Your task to perform on an android device: turn off sleep mode Image 0: 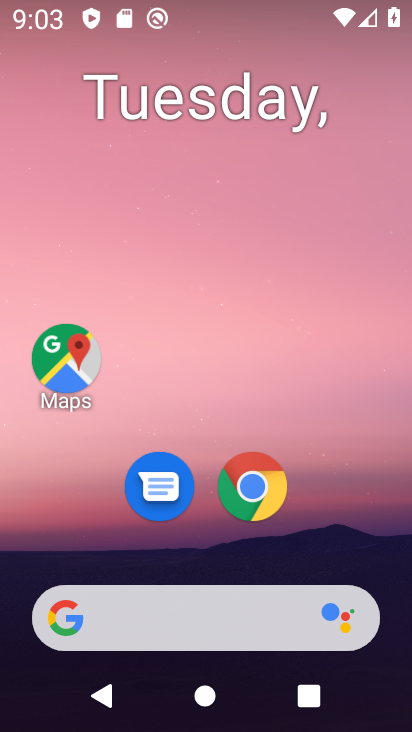
Step 0: press home button
Your task to perform on an android device: turn off sleep mode Image 1: 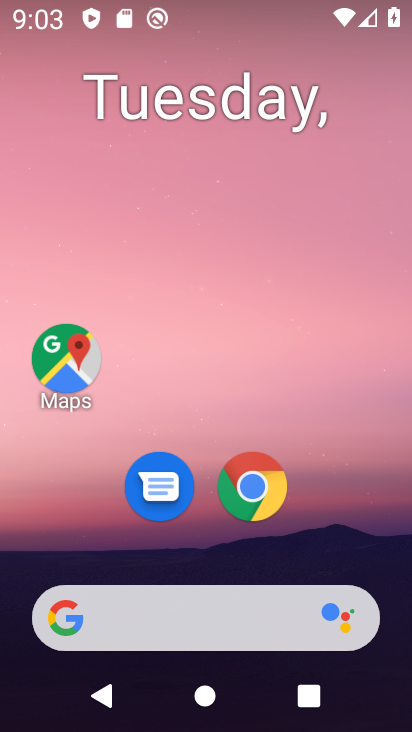
Step 1: drag from (357, 539) to (354, 158)
Your task to perform on an android device: turn off sleep mode Image 2: 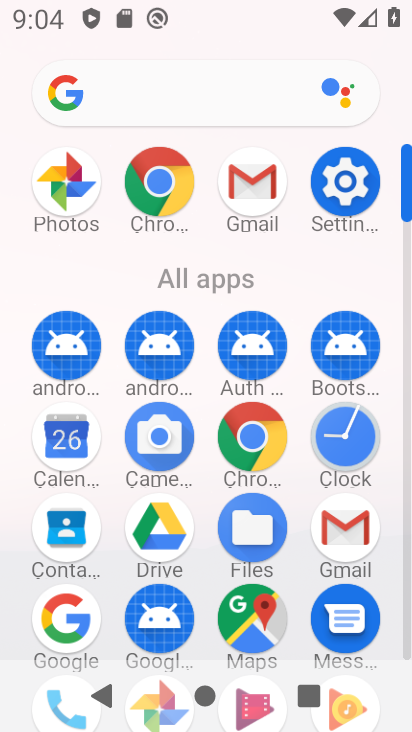
Step 2: click (348, 184)
Your task to perform on an android device: turn off sleep mode Image 3: 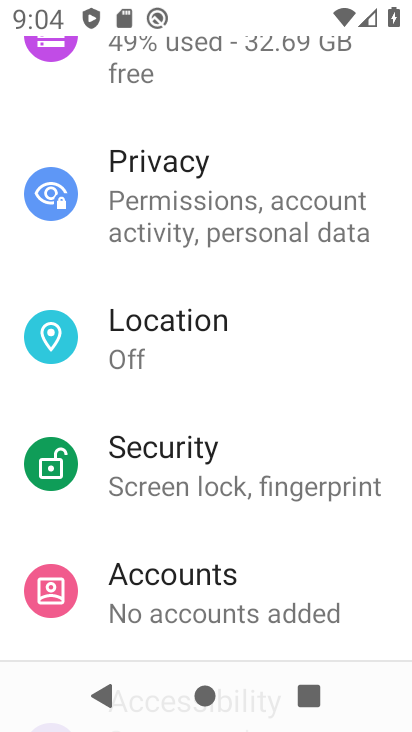
Step 3: drag from (345, 410) to (355, 350)
Your task to perform on an android device: turn off sleep mode Image 4: 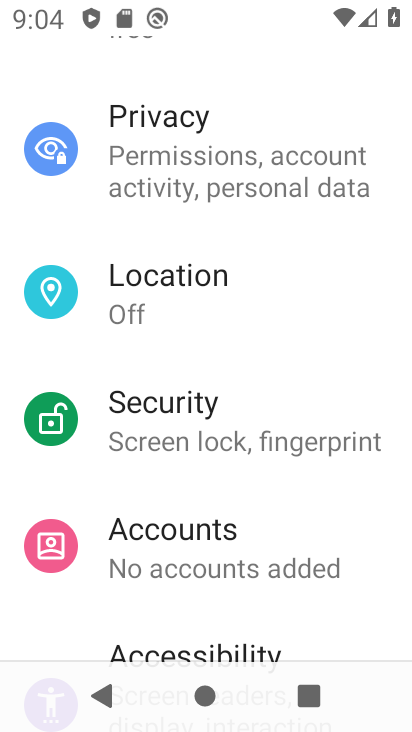
Step 4: drag from (342, 514) to (353, 458)
Your task to perform on an android device: turn off sleep mode Image 5: 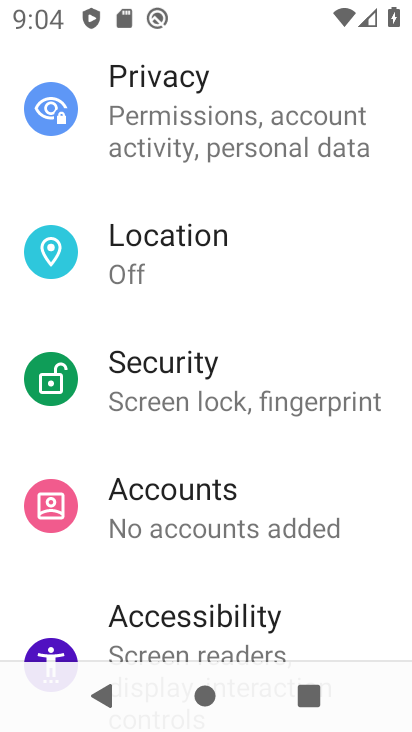
Step 5: drag from (348, 542) to (355, 476)
Your task to perform on an android device: turn off sleep mode Image 6: 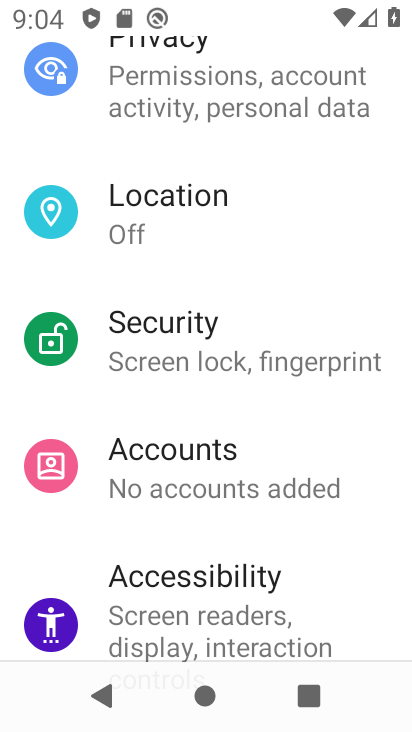
Step 6: drag from (349, 556) to (351, 478)
Your task to perform on an android device: turn off sleep mode Image 7: 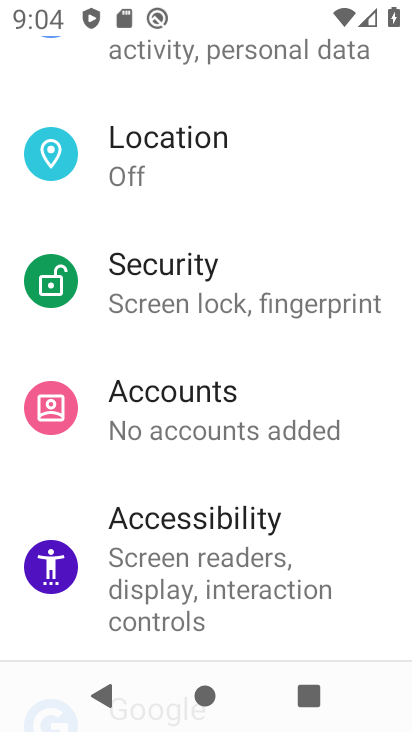
Step 7: drag from (349, 553) to (356, 504)
Your task to perform on an android device: turn off sleep mode Image 8: 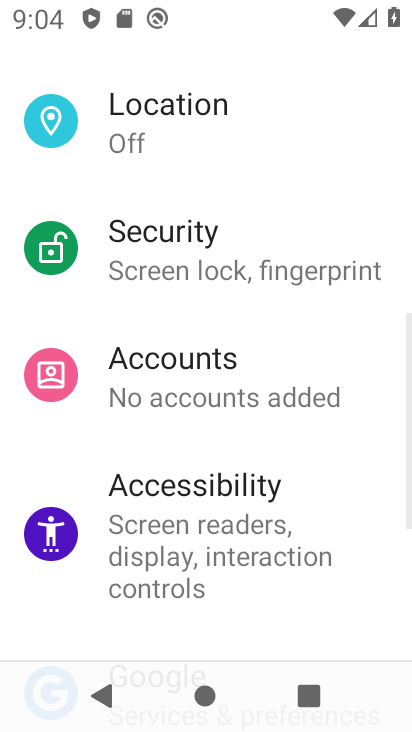
Step 8: drag from (360, 552) to (365, 473)
Your task to perform on an android device: turn off sleep mode Image 9: 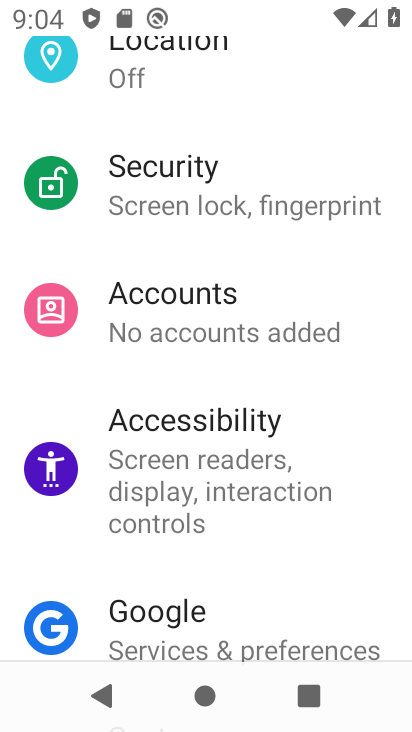
Step 9: drag from (362, 562) to (364, 443)
Your task to perform on an android device: turn off sleep mode Image 10: 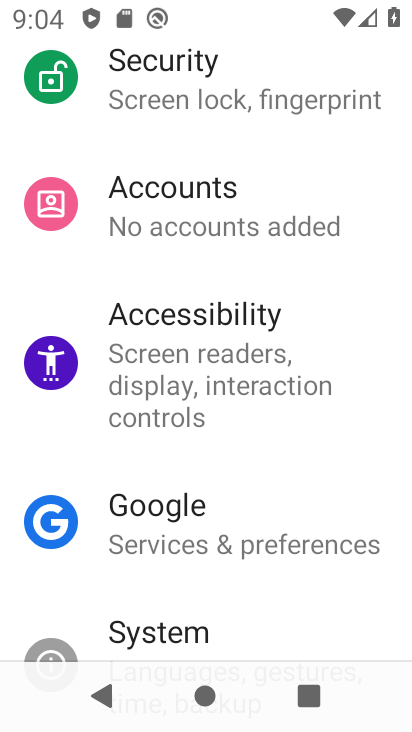
Step 10: drag from (353, 308) to (359, 402)
Your task to perform on an android device: turn off sleep mode Image 11: 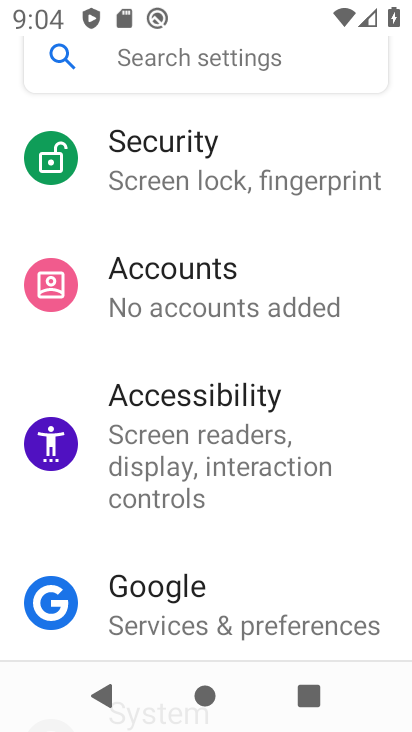
Step 11: drag from (376, 290) to (375, 374)
Your task to perform on an android device: turn off sleep mode Image 12: 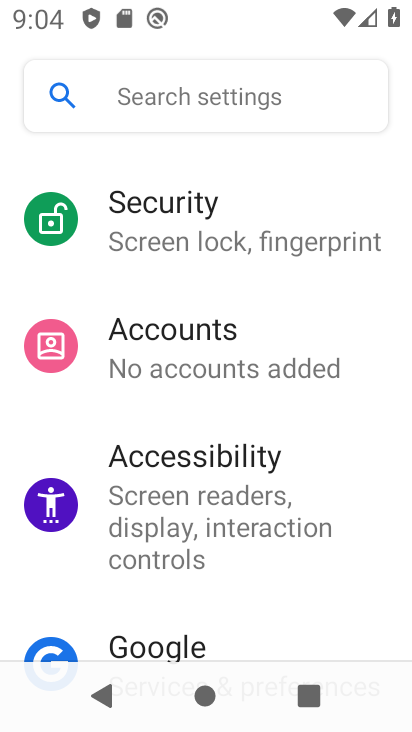
Step 12: drag from (364, 278) to (367, 355)
Your task to perform on an android device: turn off sleep mode Image 13: 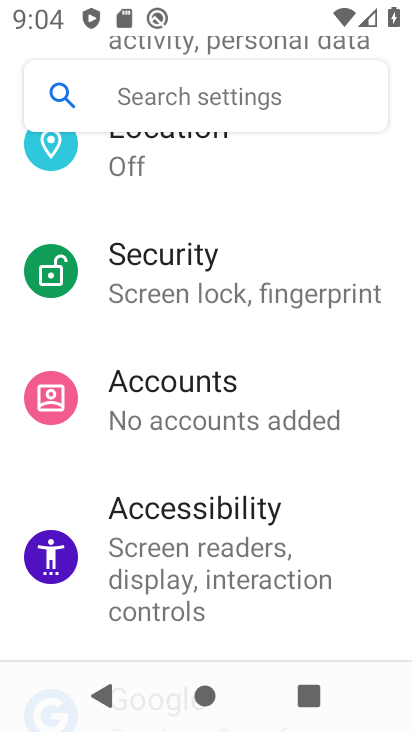
Step 13: drag from (362, 194) to (362, 295)
Your task to perform on an android device: turn off sleep mode Image 14: 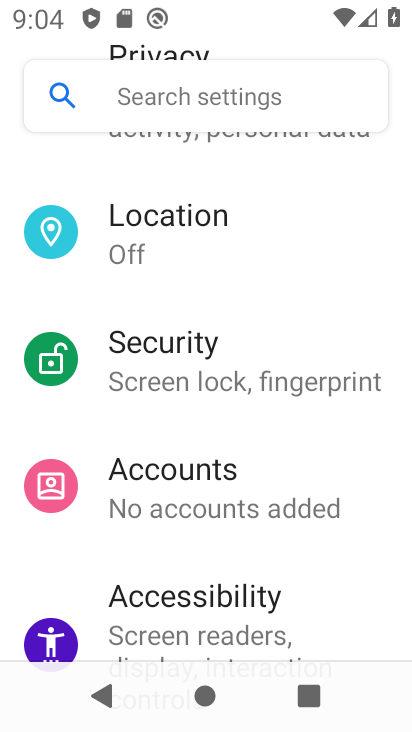
Step 14: drag from (364, 203) to (361, 297)
Your task to perform on an android device: turn off sleep mode Image 15: 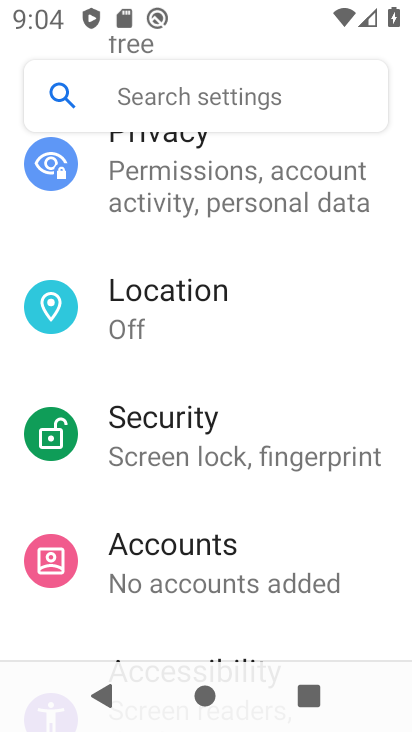
Step 15: drag from (388, 191) to (384, 308)
Your task to perform on an android device: turn off sleep mode Image 16: 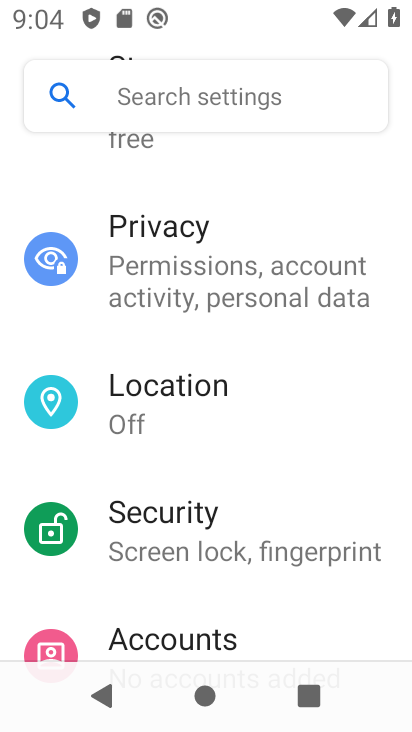
Step 16: drag from (375, 202) to (374, 323)
Your task to perform on an android device: turn off sleep mode Image 17: 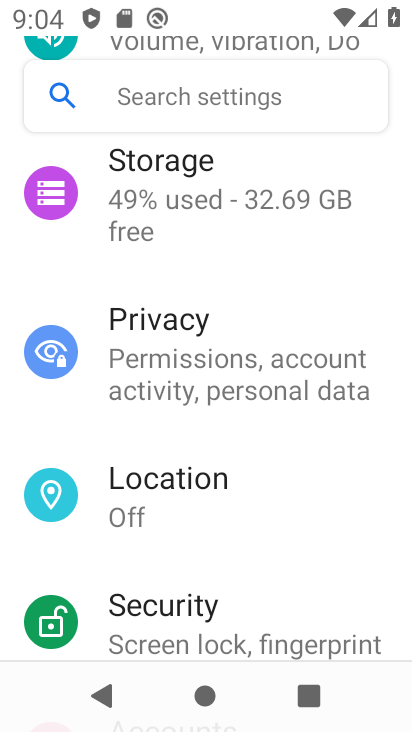
Step 17: drag from (374, 216) to (374, 300)
Your task to perform on an android device: turn off sleep mode Image 18: 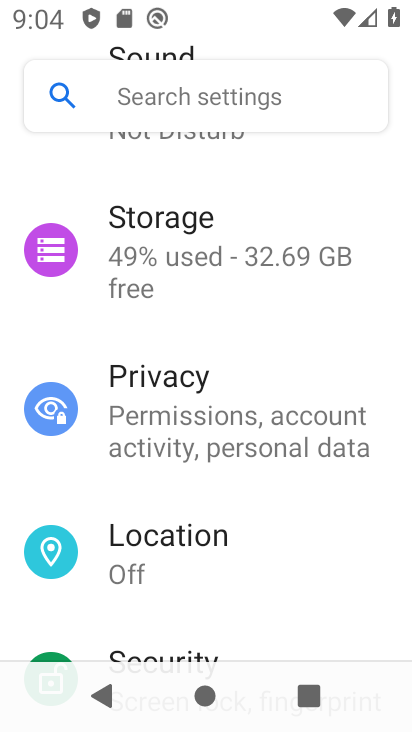
Step 18: drag from (371, 220) to (374, 326)
Your task to perform on an android device: turn off sleep mode Image 19: 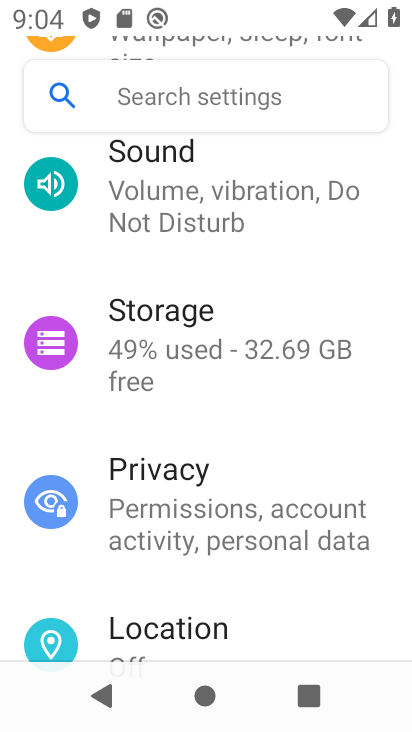
Step 19: drag from (378, 211) to (382, 319)
Your task to perform on an android device: turn off sleep mode Image 20: 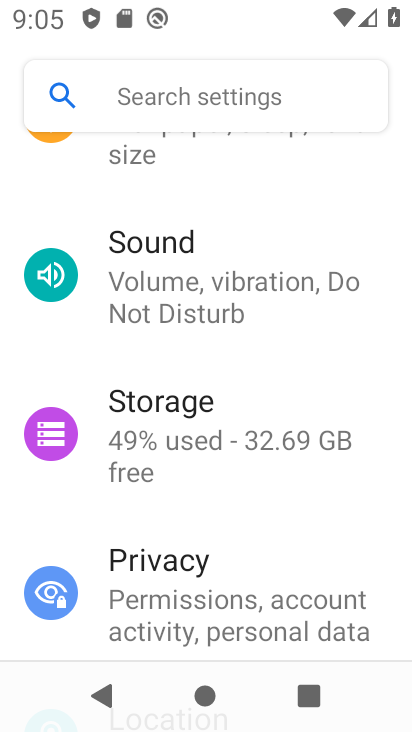
Step 20: drag from (376, 199) to (377, 322)
Your task to perform on an android device: turn off sleep mode Image 21: 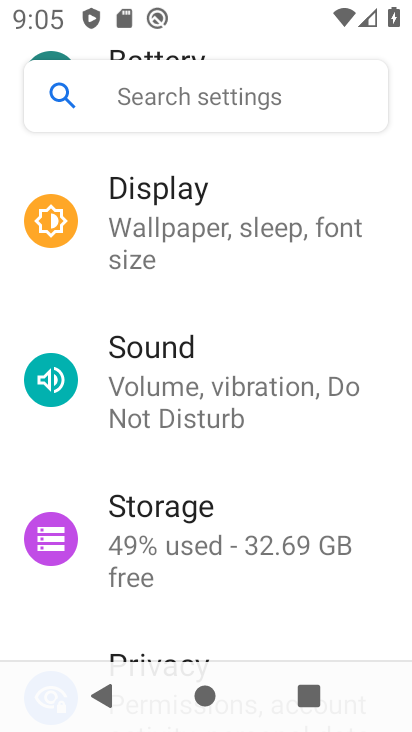
Step 21: drag from (385, 179) to (381, 336)
Your task to perform on an android device: turn off sleep mode Image 22: 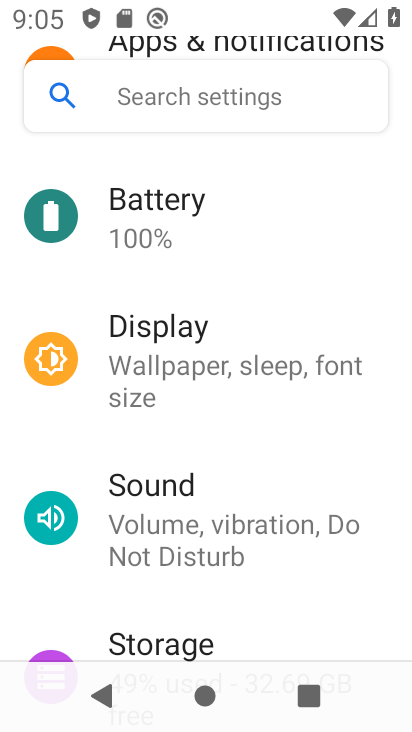
Step 22: click (356, 353)
Your task to perform on an android device: turn off sleep mode Image 23: 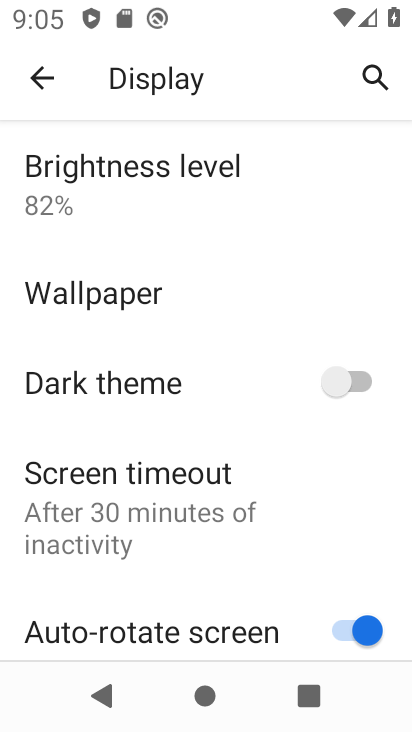
Step 23: drag from (288, 471) to (298, 396)
Your task to perform on an android device: turn off sleep mode Image 24: 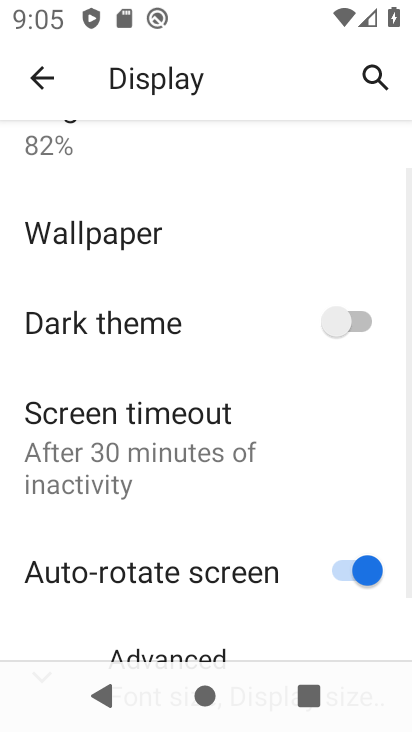
Step 24: drag from (276, 500) to (283, 374)
Your task to perform on an android device: turn off sleep mode Image 25: 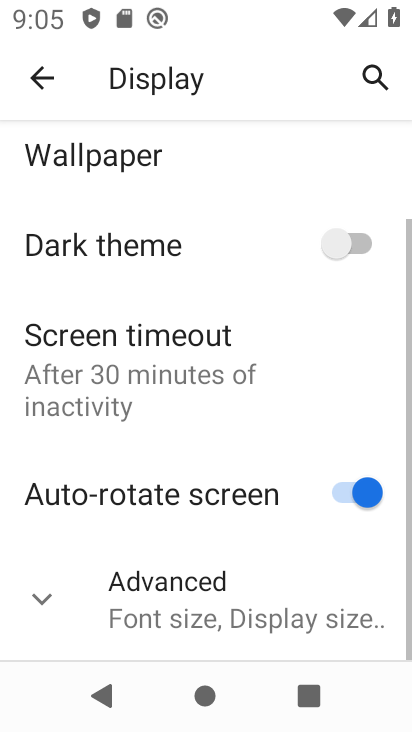
Step 25: click (273, 564)
Your task to perform on an android device: turn off sleep mode Image 26: 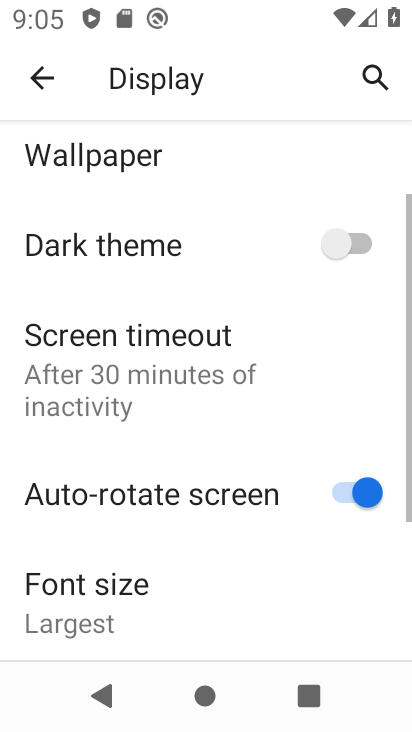
Step 26: task complete